Your task to perform on an android device: check data usage Image 0: 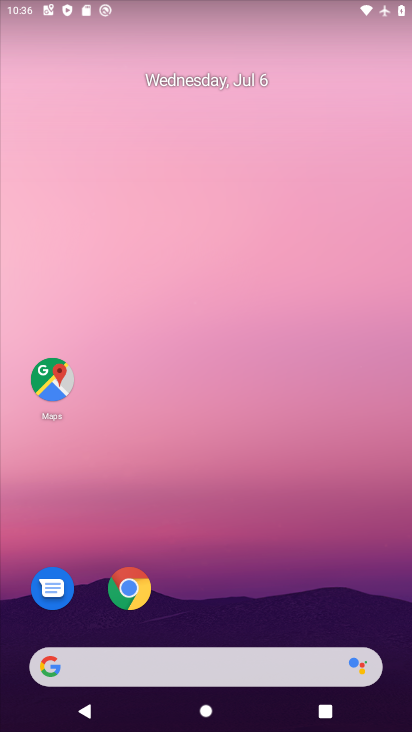
Step 0: drag from (286, 577) to (269, 213)
Your task to perform on an android device: check data usage Image 1: 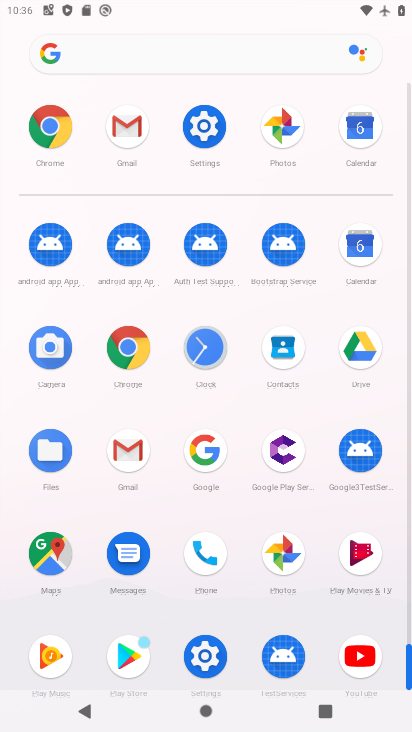
Step 1: click (209, 114)
Your task to perform on an android device: check data usage Image 2: 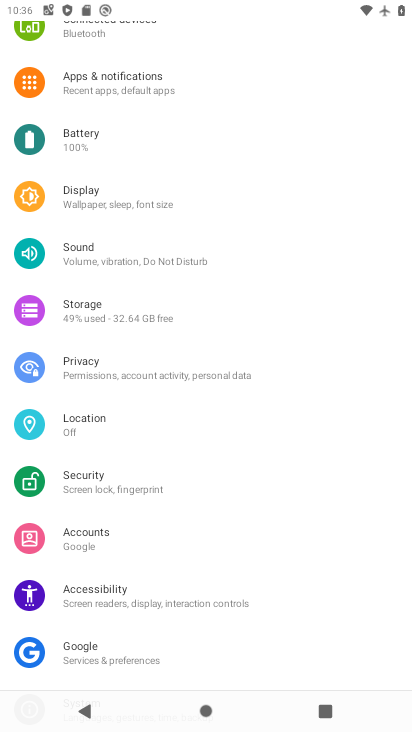
Step 2: drag from (141, 101) to (172, 350)
Your task to perform on an android device: check data usage Image 3: 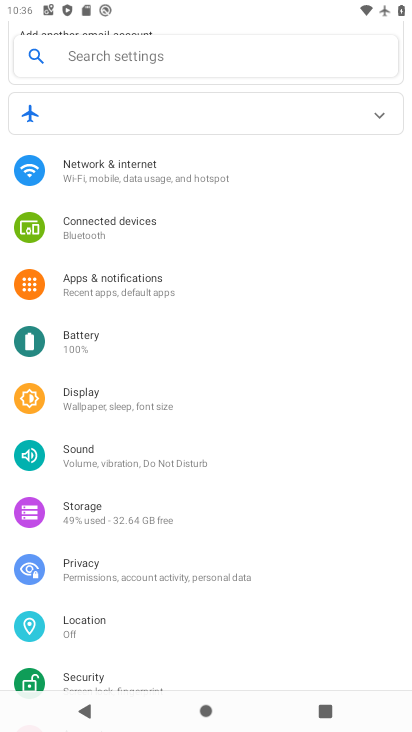
Step 3: click (162, 176)
Your task to perform on an android device: check data usage Image 4: 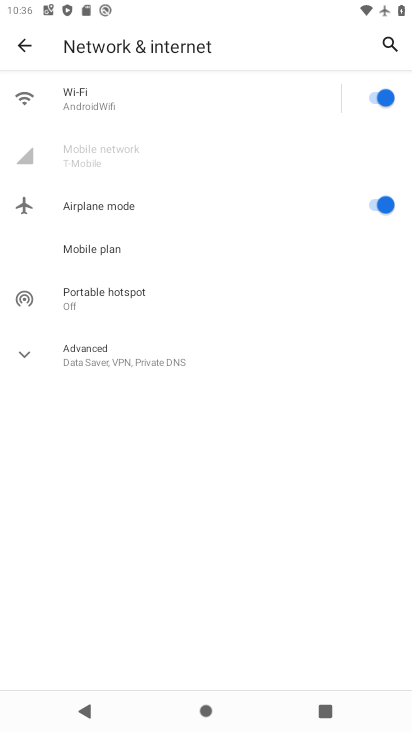
Step 4: click (120, 156)
Your task to perform on an android device: check data usage Image 5: 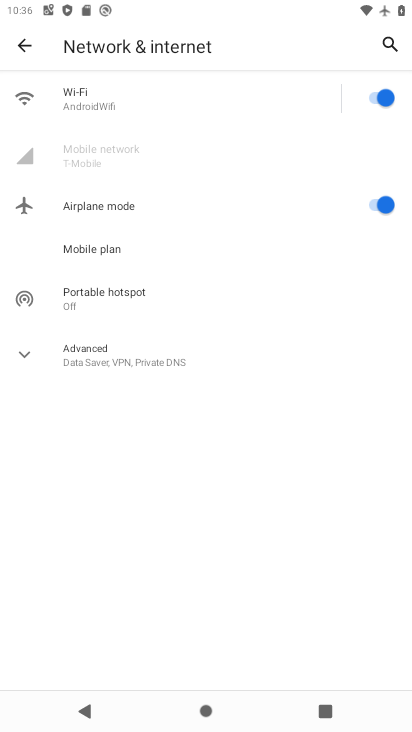
Step 5: task complete